Your task to perform on an android device: Open ESPN.com Image 0: 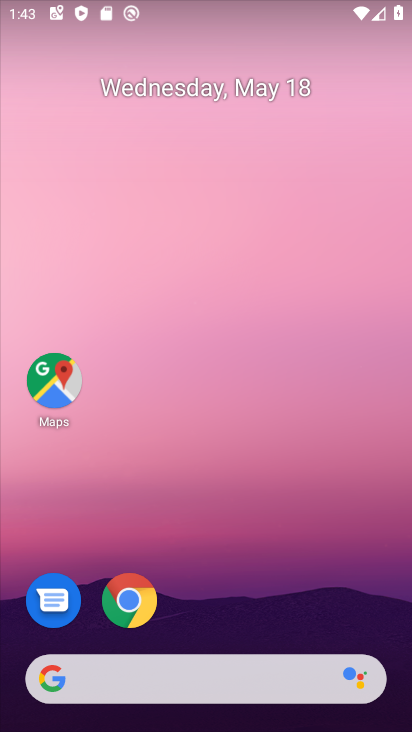
Step 0: click (128, 600)
Your task to perform on an android device: Open ESPN.com Image 1: 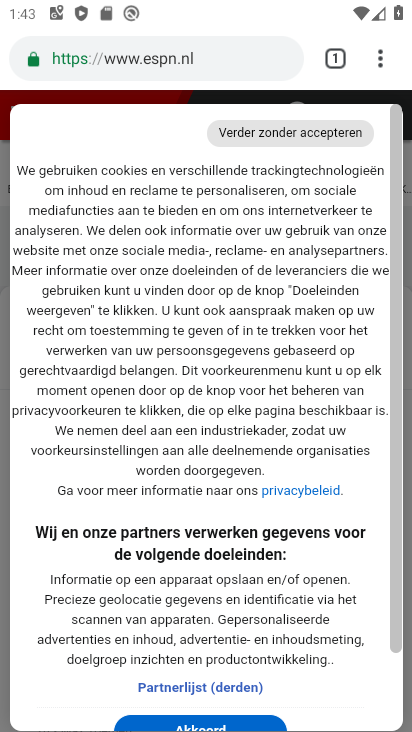
Step 1: click (219, 55)
Your task to perform on an android device: Open ESPN.com Image 2: 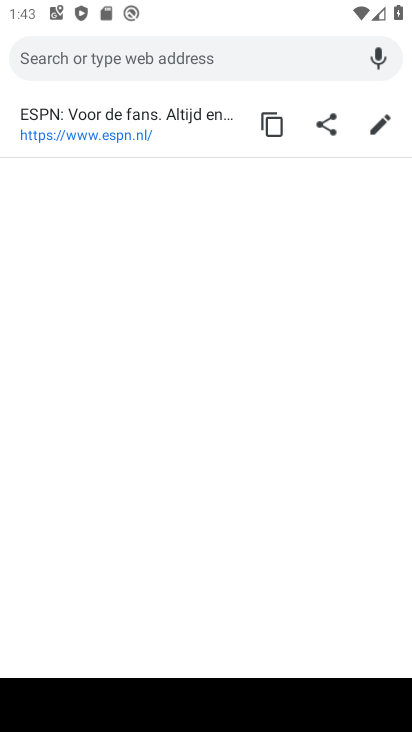
Step 2: type "ESPN.com"
Your task to perform on an android device: Open ESPN.com Image 3: 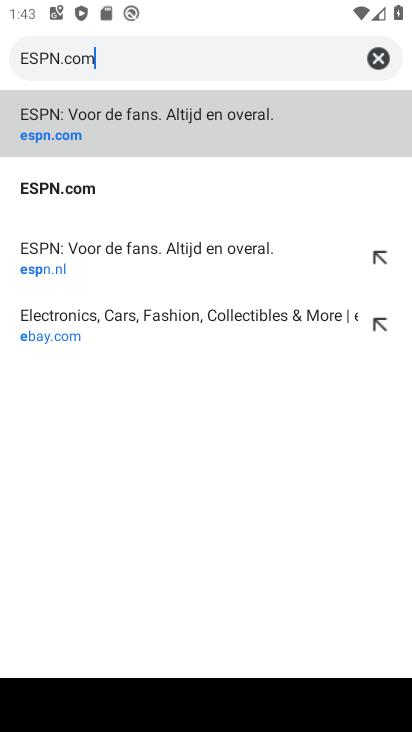
Step 3: type ""
Your task to perform on an android device: Open ESPN.com Image 4: 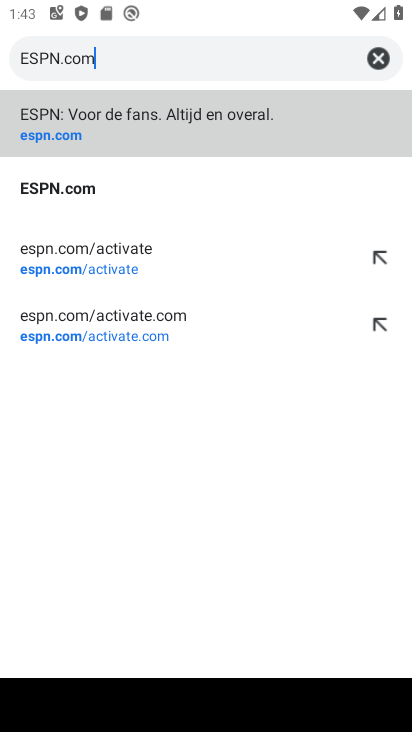
Step 4: click (84, 191)
Your task to perform on an android device: Open ESPN.com Image 5: 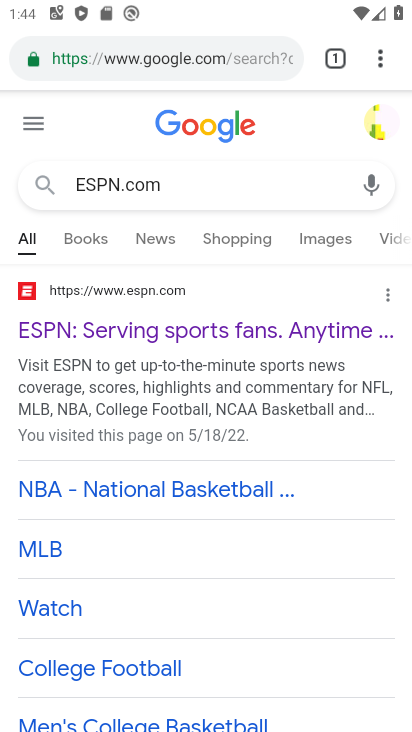
Step 5: click (121, 321)
Your task to perform on an android device: Open ESPN.com Image 6: 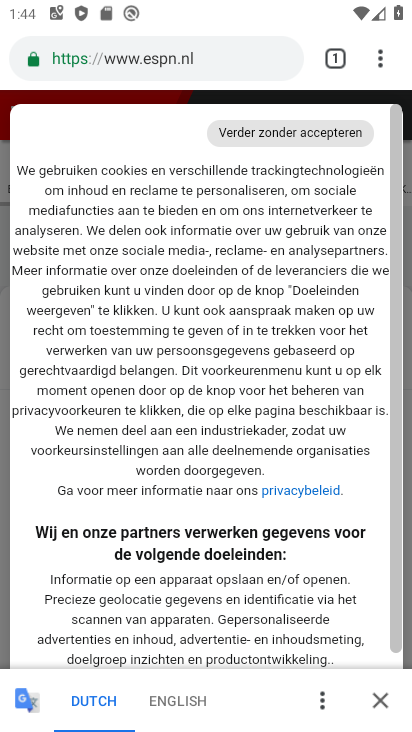
Step 6: task complete